Your task to perform on an android device: add a contact in the contacts app Image 0: 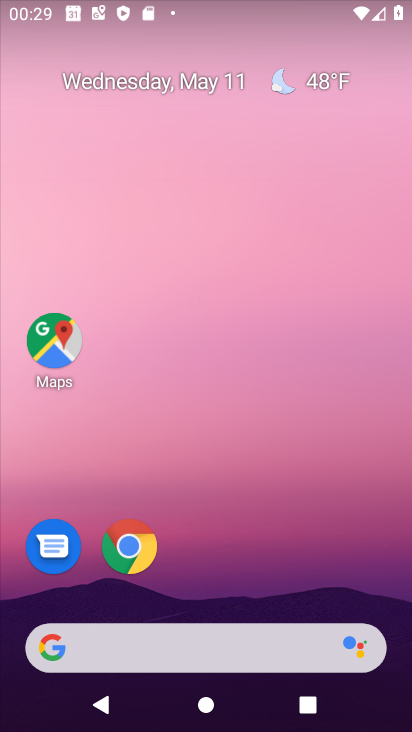
Step 0: drag from (167, 596) to (167, 138)
Your task to perform on an android device: add a contact in the contacts app Image 1: 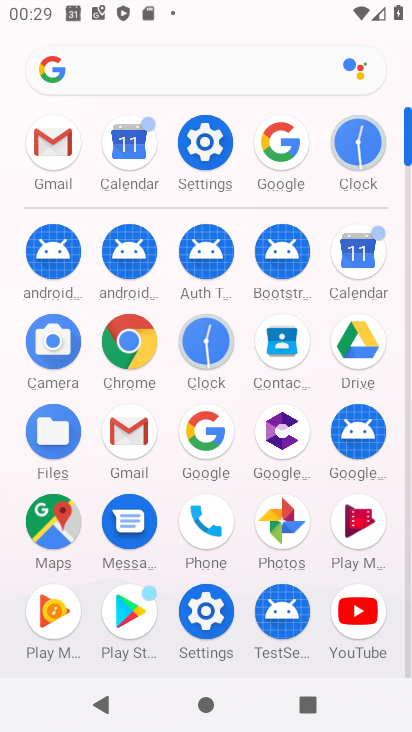
Step 1: drag from (172, 574) to (205, 261)
Your task to perform on an android device: add a contact in the contacts app Image 2: 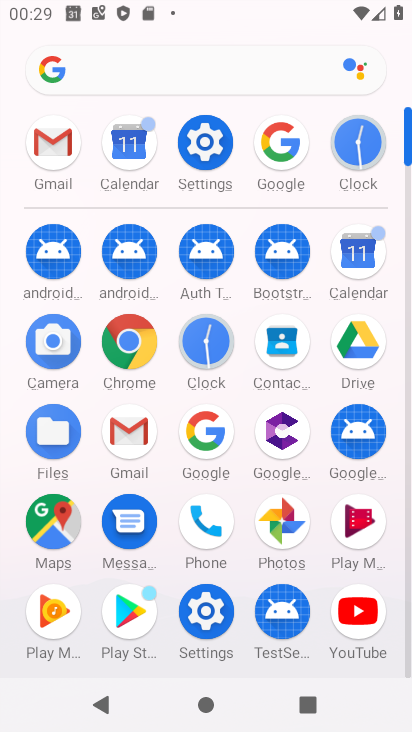
Step 2: click (295, 341)
Your task to perform on an android device: add a contact in the contacts app Image 3: 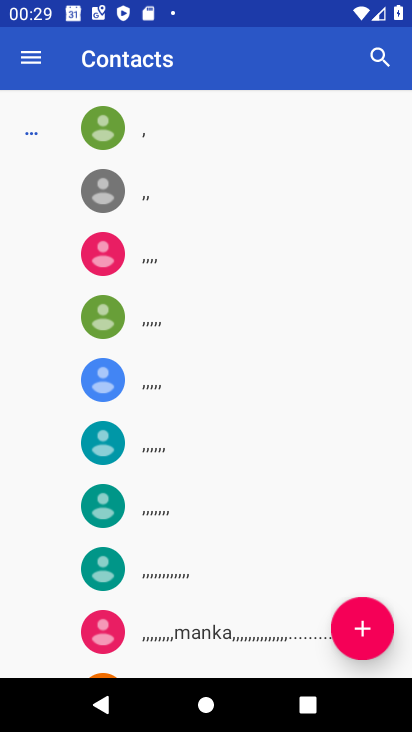
Step 3: click (348, 631)
Your task to perform on an android device: add a contact in the contacts app Image 4: 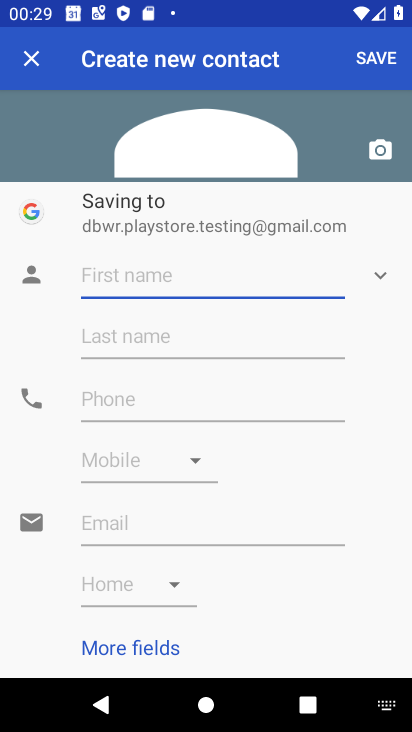
Step 4: click (212, 278)
Your task to perform on an android device: add a contact in the contacts app Image 5: 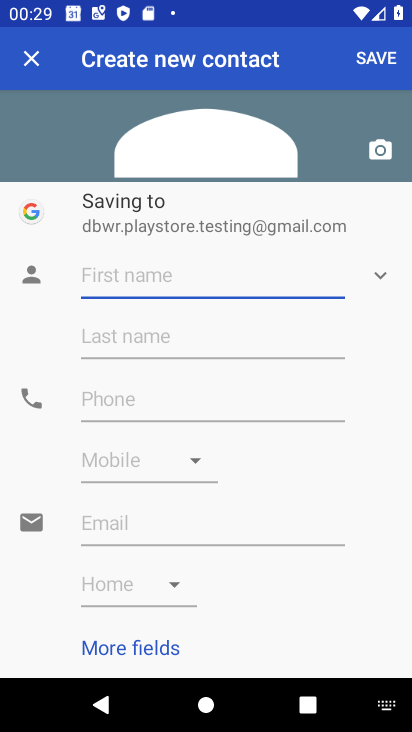
Step 5: type "b,jhvhj"
Your task to perform on an android device: add a contact in the contacts app Image 6: 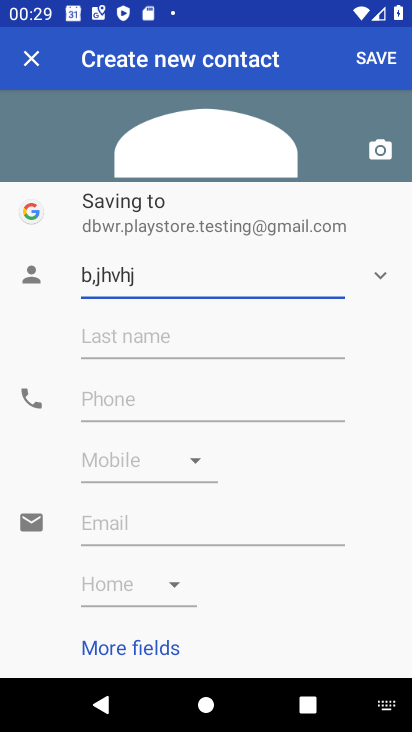
Step 6: click (185, 391)
Your task to perform on an android device: add a contact in the contacts app Image 7: 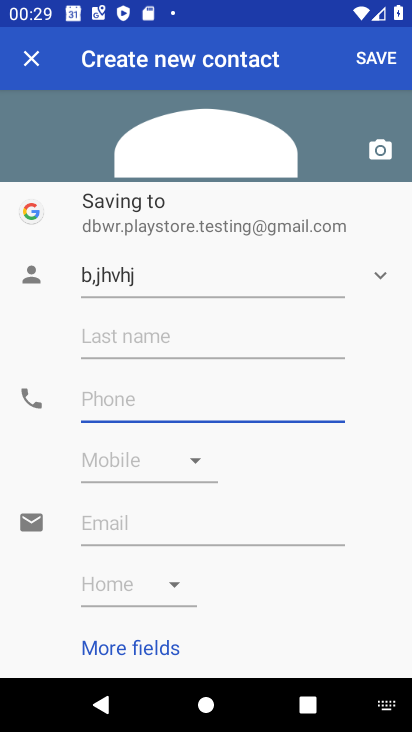
Step 7: type "878656687"
Your task to perform on an android device: add a contact in the contacts app Image 8: 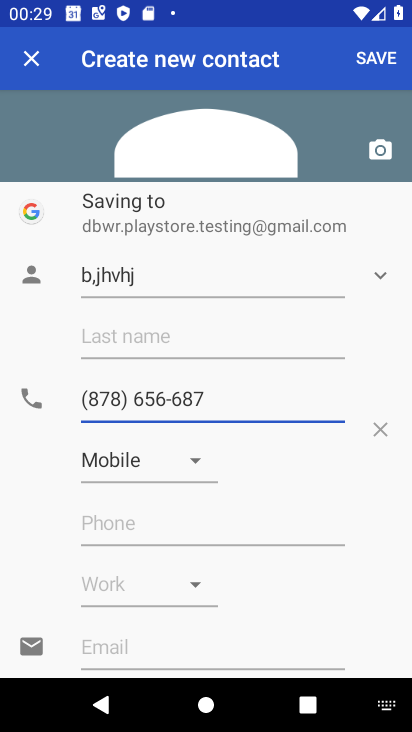
Step 8: click (380, 65)
Your task to perform on an android device: add a contact in the contacts app Image 9: 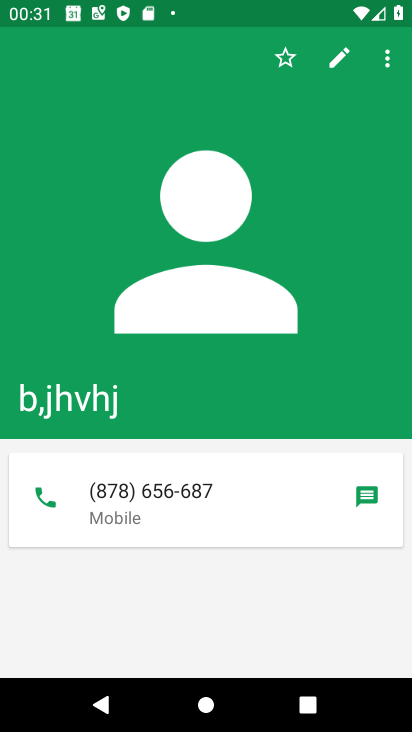
Step 9: task complete